Your task to perform on an android device: Go to sound settings Image 0: 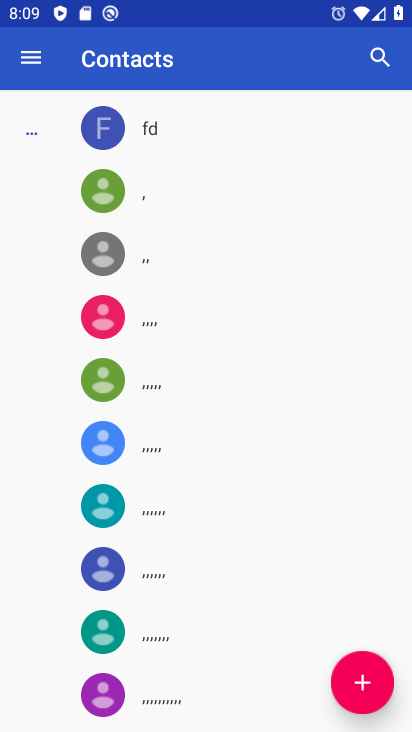
Step 0: press home button
Your task to perform on an android device: Go to sound settings Image 1: 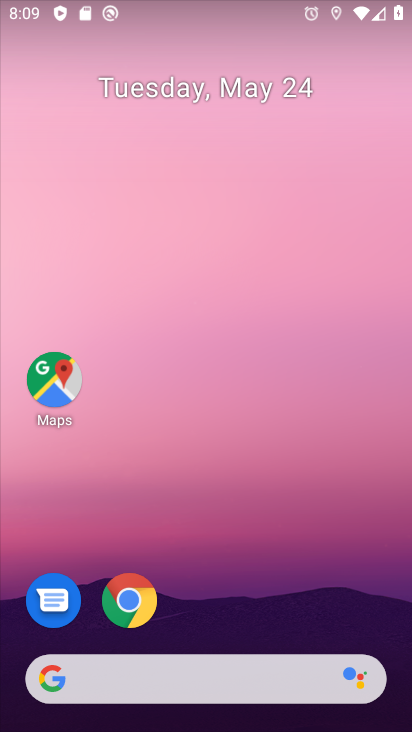
Step 1: drag from (210, 715) to (170, 145)
Your task to perform on an android device: Go to sound settings Image 2: 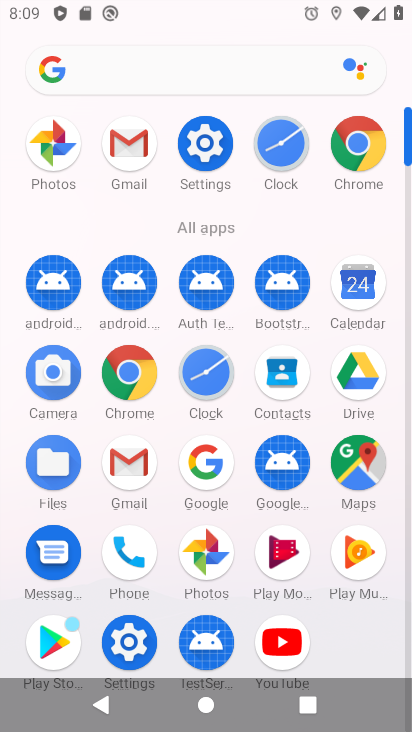
Step 2: click (200, 153)
Your task to perform on an android device: Go to sound settings Image 3: 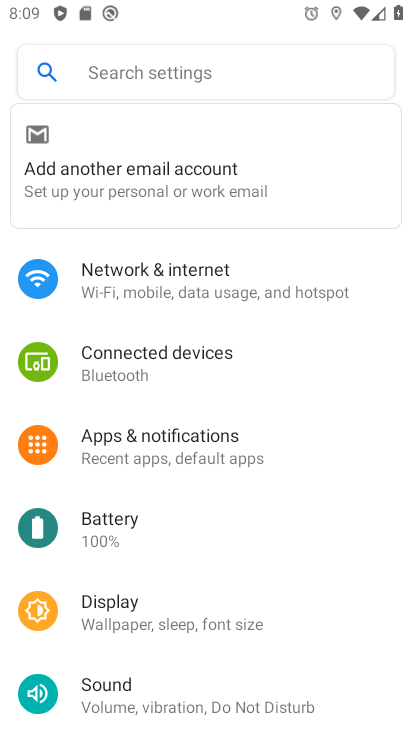
Step 3: click (162, 695)
Your task to perform on an android device: Go to sound settings Image 4: 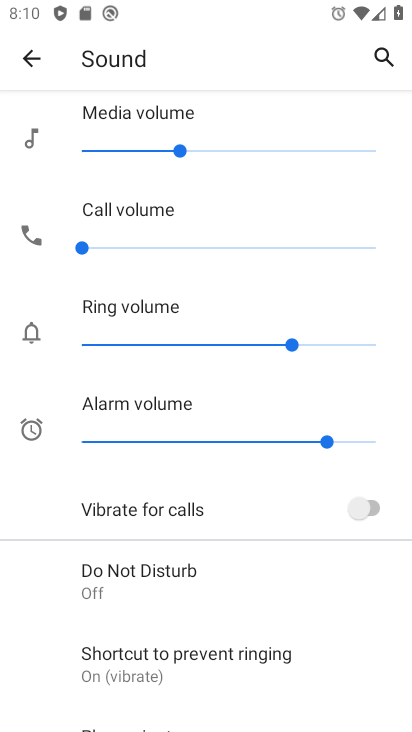
Step 4: task complete